Your task to perform on an android device: Do I have any events today? Image 0: 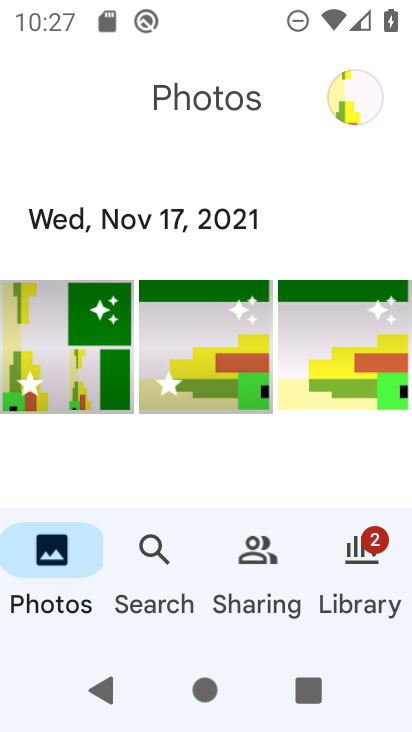
Step 0: press home button
Your task to perform on an android device: Do I have any events today? Image 1: 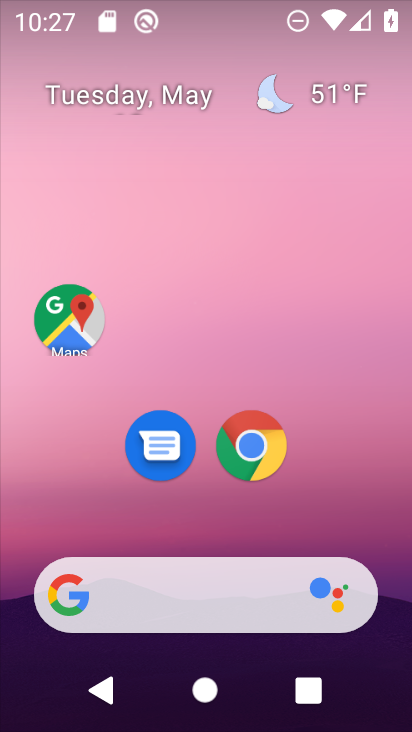
Step 1: drag from (185, 571) to (158, 38)
Your task to perform on an android device: Do I have any events today? Image 2: 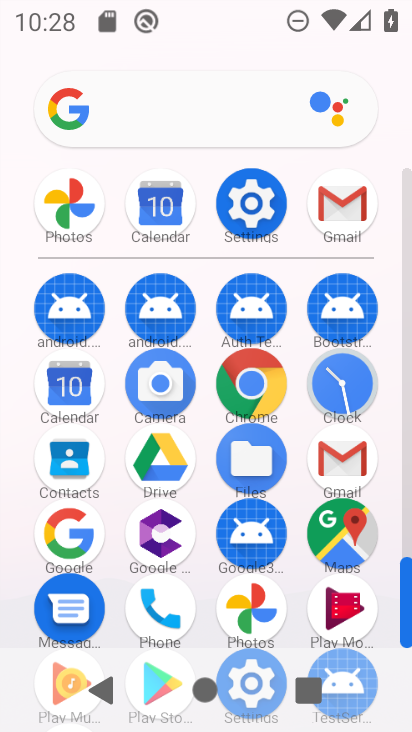
Step 2: click (75, 386)
Your task to perform on an android device: Do I have any events today? Image 3: 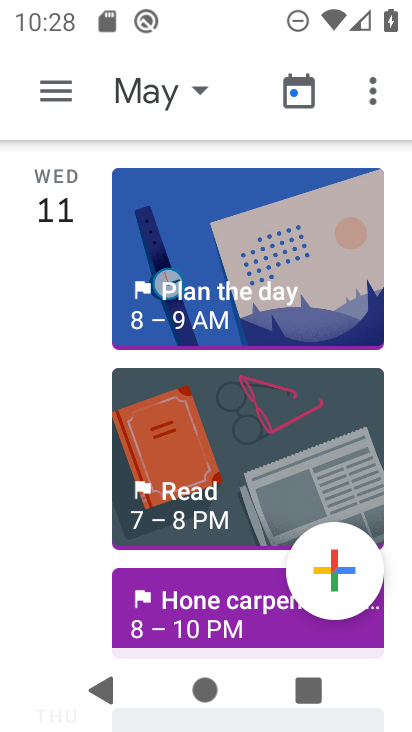
Step 3: task complete